Your task to perform on an android device: stop showing notifications on the lock screen Image 0: 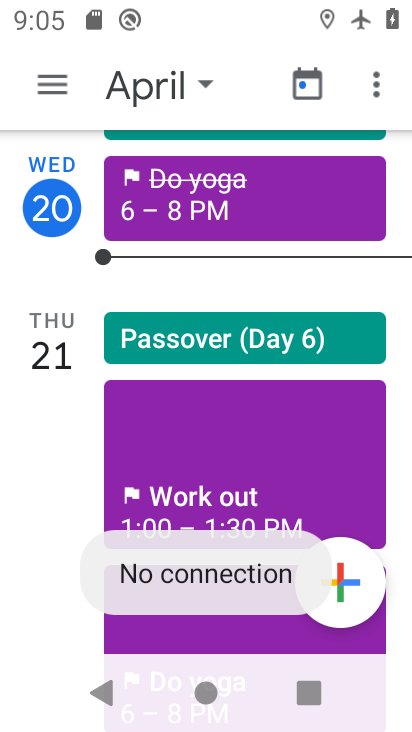
Step 0: drag from (332, 520) to (329, 103)
Your task to perform on an android device: stop showing notifications on the lock screen Image 1: 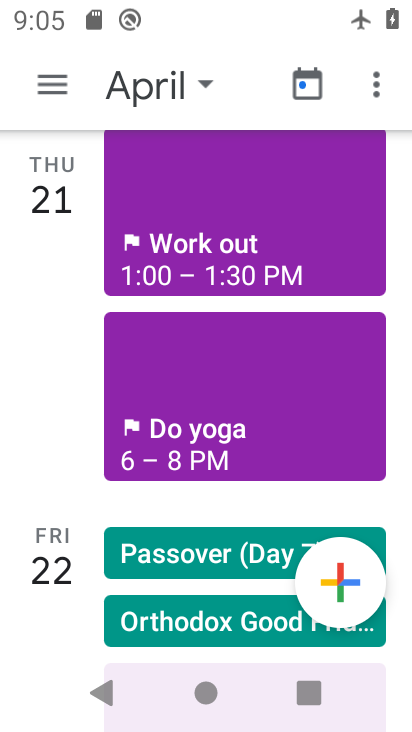
Step 1: press home button
Your task to perform on an android device: stop showing notifications on the lock screen Image 2: 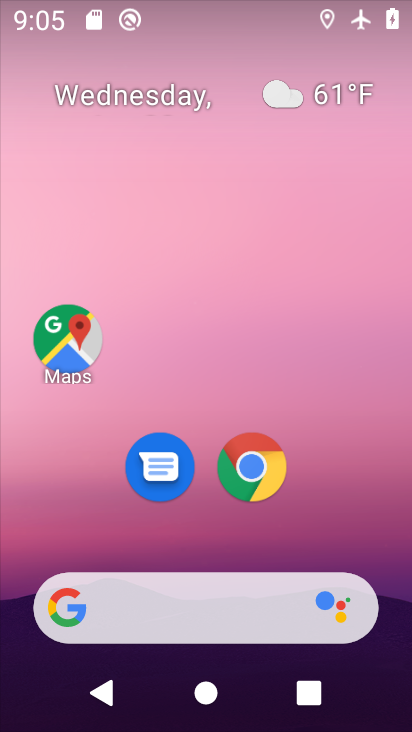
Step 2: drag from (350, 462) to (316, 89)
Your task to perform on an android device: stop showing notifications on the lock screen Image 3: 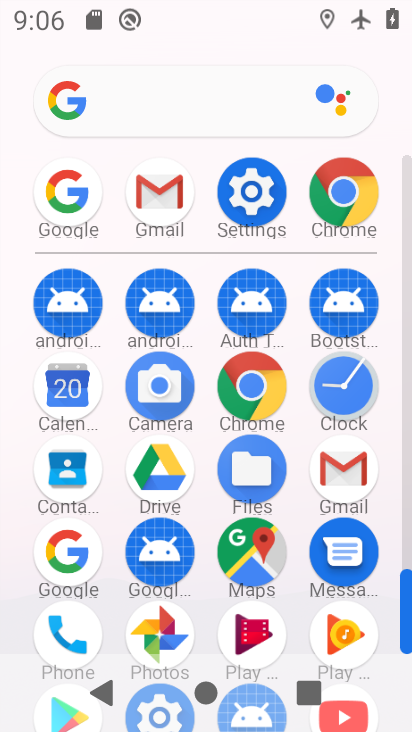
Step 3: click (251, 203)
Your task to perform on an android device: stop showing notifications on the lock screen Image 4: 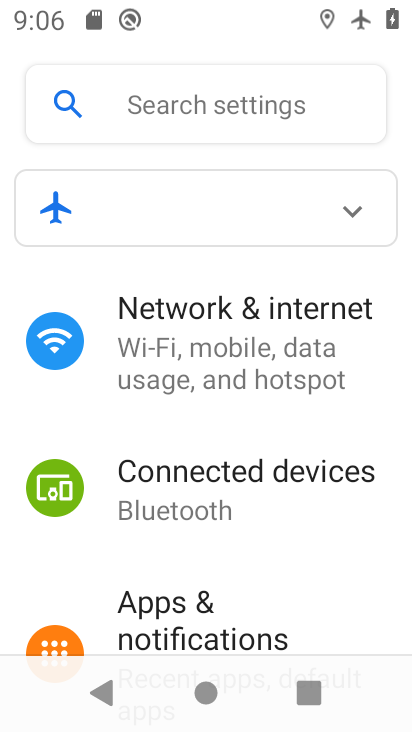
Step 4: drag from (314, 576) to (322, 312)
Your task to perform on an android device: stop showing notifications on the lock screen Image 5: 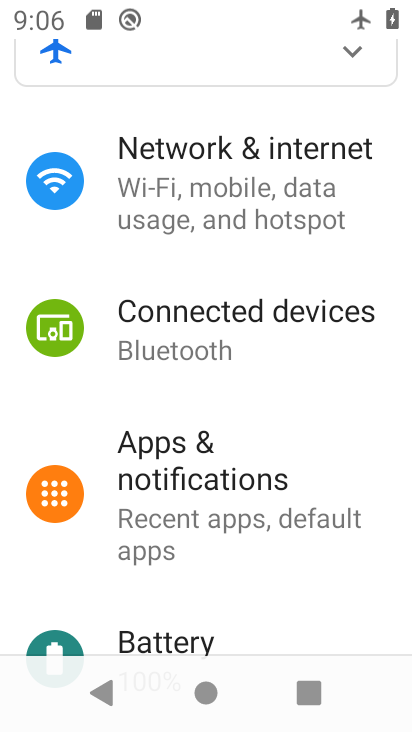
Step 5: click (196, 495)
Your task to perform on an android device: stop showing notifications on the lock screen Image 6: 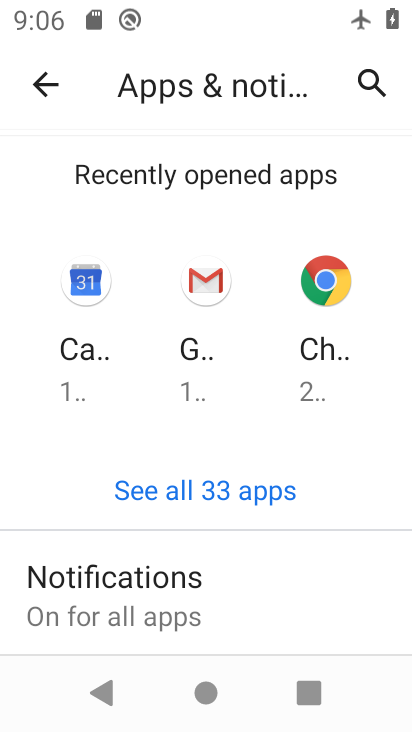
Step 6: drag from (156, 526) to (176, 170)
Your task to perform on an android device: stop showing notifications on the lock screen Image 7: 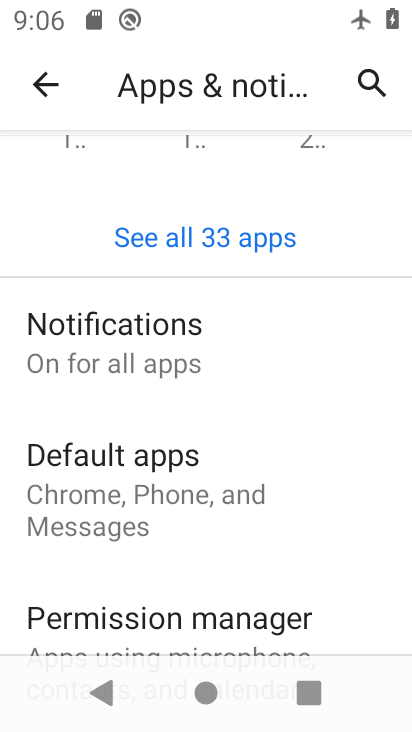
Step 7: click (187, 348)
Your task to perform on an android device: stop showing notifications on the lock screen Image 8: 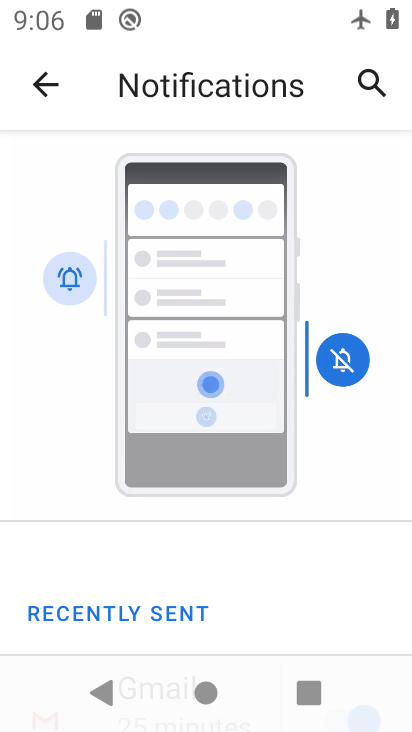
Step 8: drag from (262, 563) to (248, 206)
Your task to perform on an android device: stop showing notifications on the lock screen Image 9: 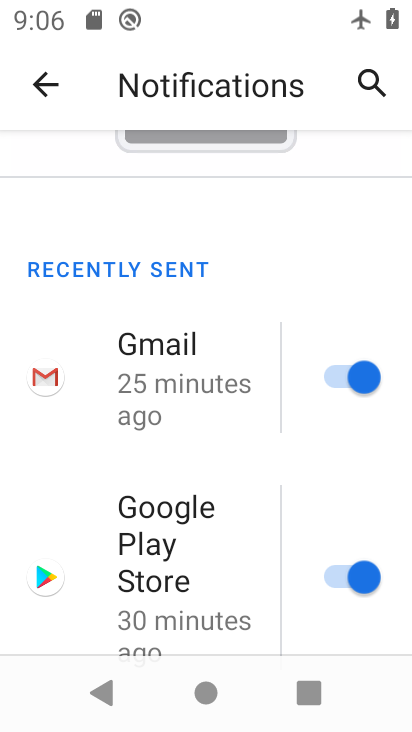
Step 9: drag from (205, 598) to (204, 271)
Your task to perform on an android device: stop showing notifications on the lock screen Image 10: 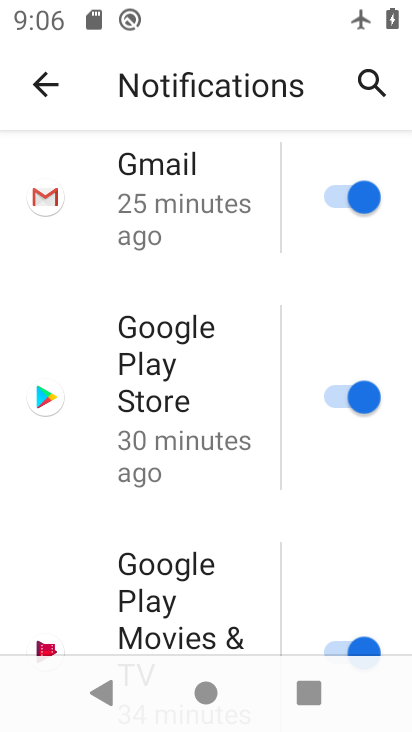
Step 10: drag from (188, 516) to (190, 213)
Your task to perform on an android device: stop showing notifications on the lock screen Image 11: 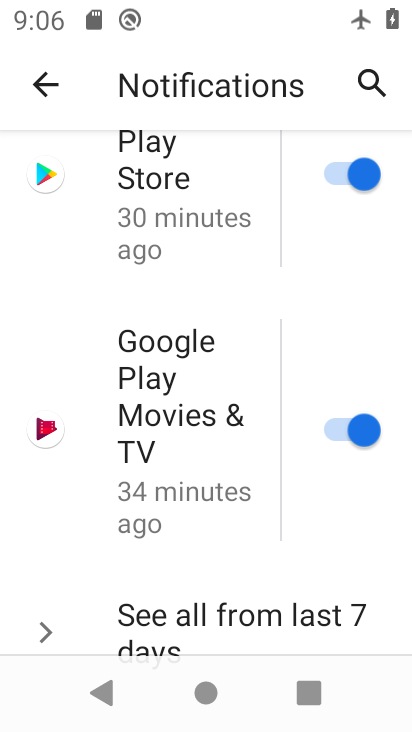
Step 11: drag from (139, 562) to (203, 235)
Your task to perform on an android device: stop showing notifications on the lock screen Image 12: 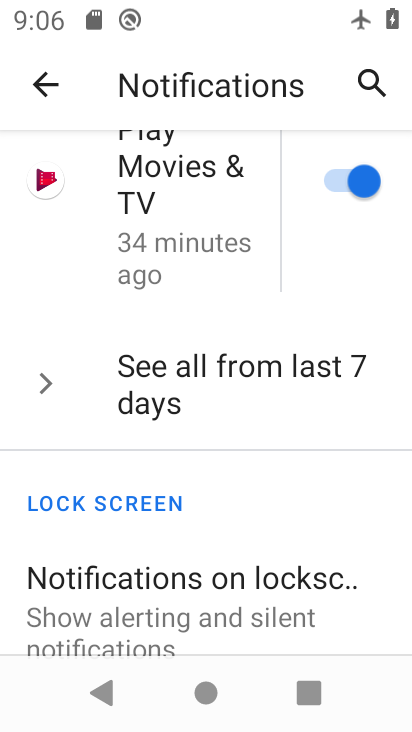
Step 12: drag from (163, 580) to (161, 260)
Your task to perform on an android device: stop showing notifications on the lock screen Image 13: 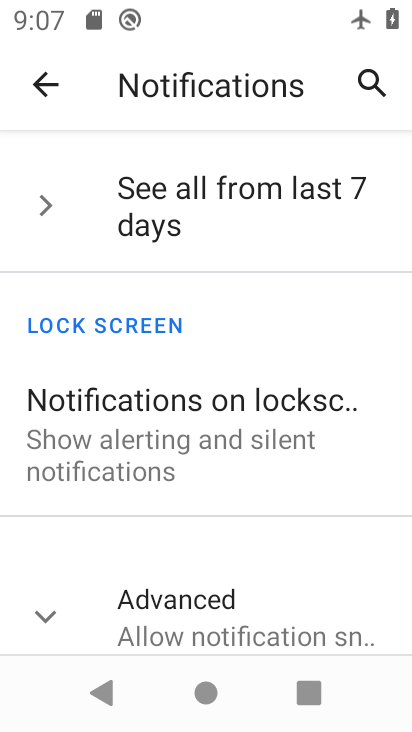
Step 13: click (147, 429)
Your task to perform on an android device: stop showing notifications on the lock screen Image 14: 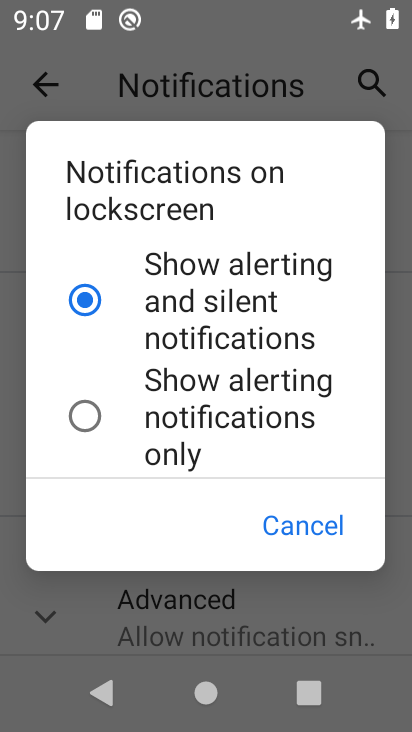
Step 14: click (83, 406)
Your task to perform on an android device: stop showing notifications on the lock screen Image 15: 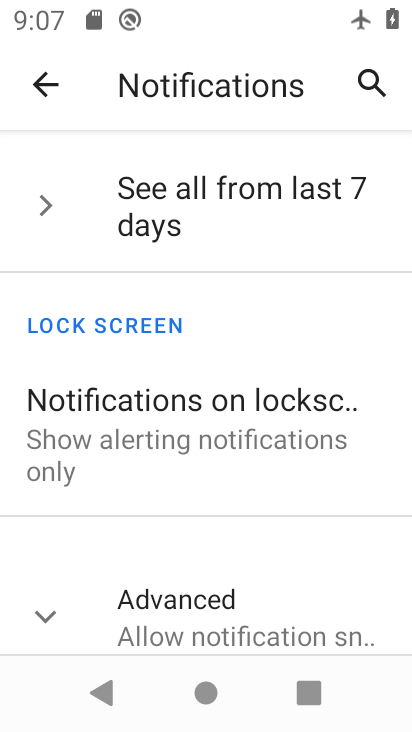
Step 15: task complete